Your task to perform on an android device: Open display settings Image 0: 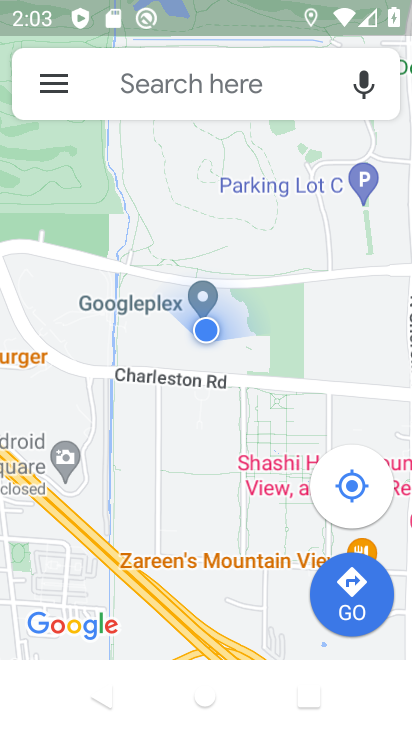
Step 0: press home button
Your task to perform on an android device: Open display settings Image 1: 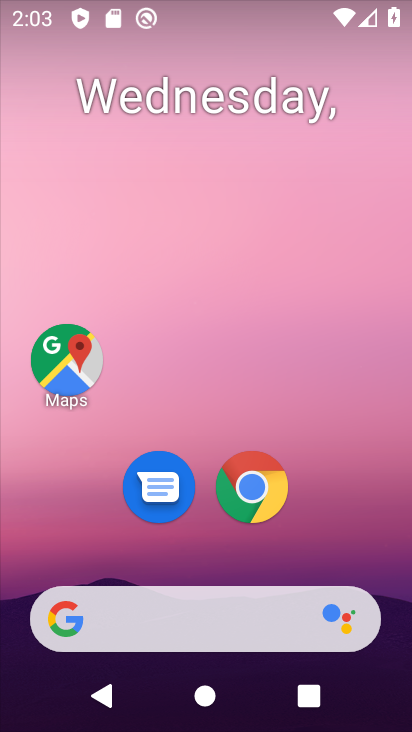
Step 1: drag from (209, 430) to (229, 36)
Your task to perform on an android device: Open display settings Image 2: 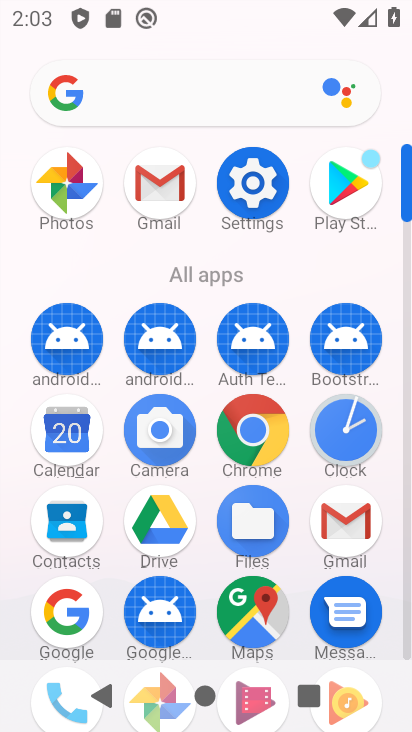
Step 2: click (257, 187)
Your task to perform on an android device: Open display settings Image 3: 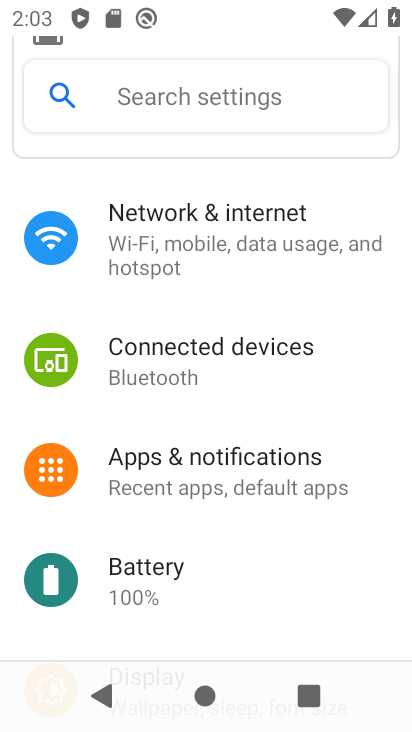
Step 3: drag from (200, 553) to (188, 334)
Your task to perform on an android device: Open display settings Image 4: 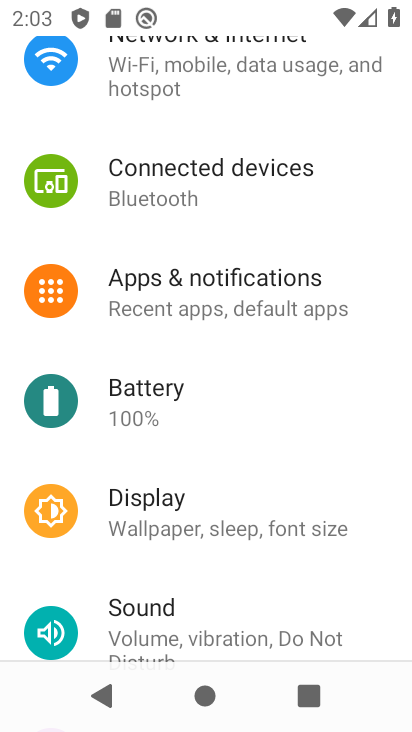
Step 4: click (236, 502)
Your task to perform on an android device: Open display settings Image 5: 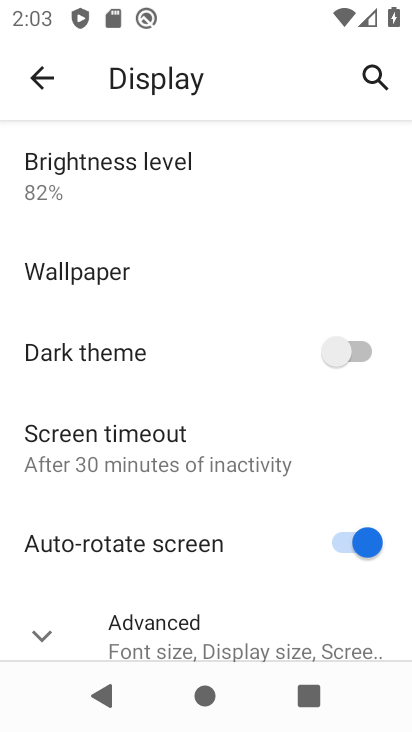
Step 5: task complete